Your task to perform on an android device: turn off translation in the chrome app Image 0: 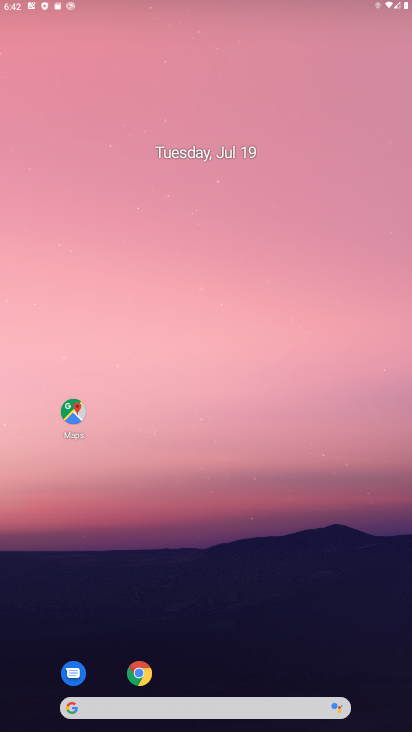
Step 0: drag from (380, 685) to (190, 48)
Your task to perform on an android device: turn off translation in the chrome app Image 1: 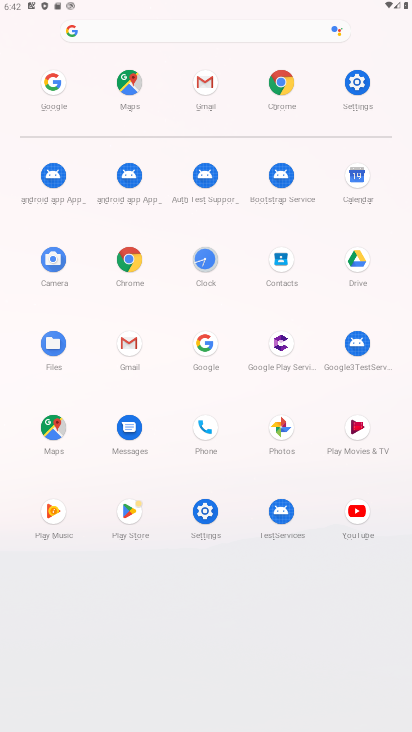
Step 1: click (125, 260)
Your task to perform on an android device: turn off translation in the chrome app Image 2: 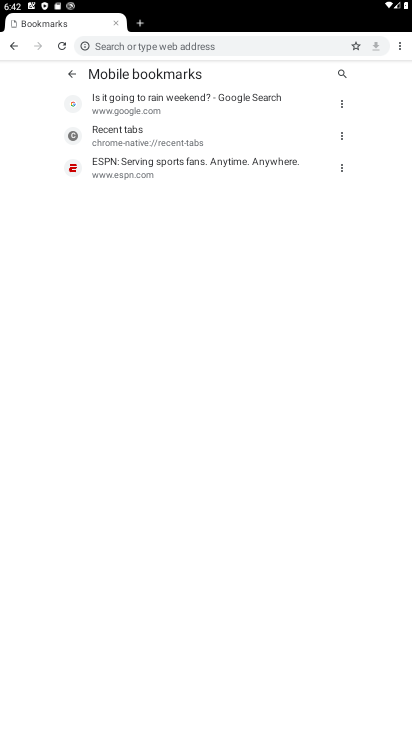
Step 2: press back button
Your task to perform on an android device: turn off translation in the chrome app Image 3: 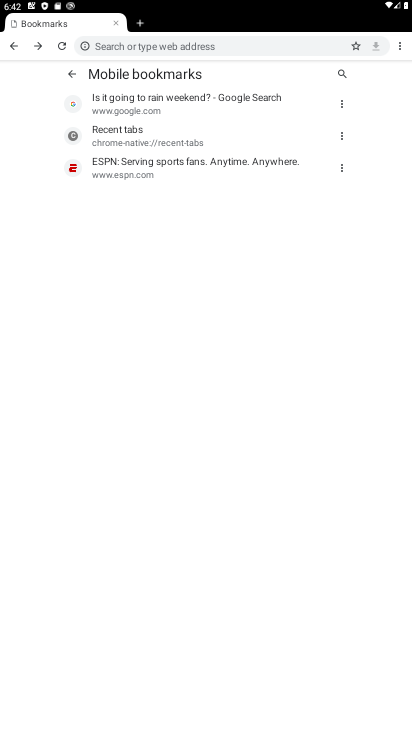
Step 3: click (403, 48)
Your task to perform on an android device: turn off translation in the chrome app Image 4: 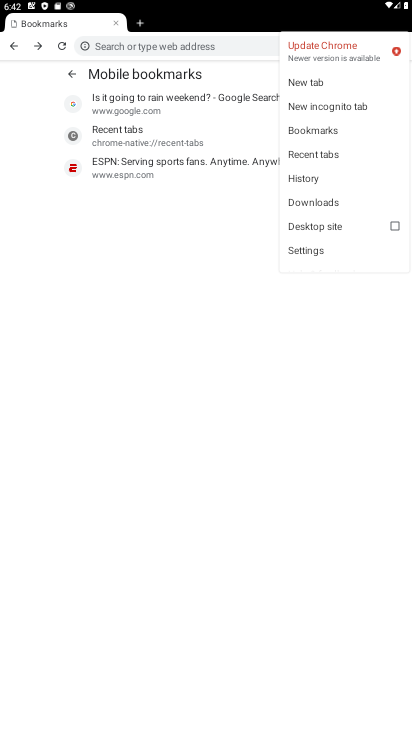
Step 4: click (307, 257)
Your task to perform on an android device: turn off translation in the chrome app Image 5: 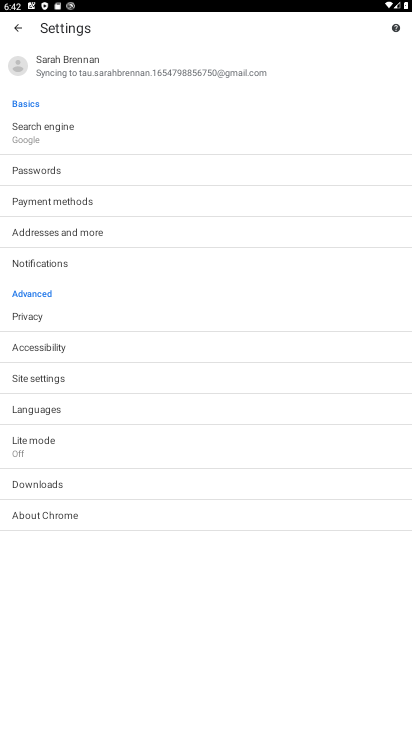
Step 5: drag from (38, 442) to (50, 249)
Your task to perform on an android device: turn off translation in the chrome app Image 6: 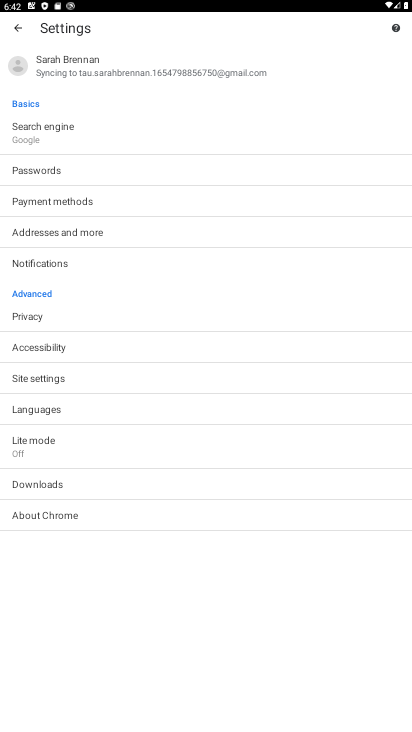
Step 6: click (71, 406)
Your task to perform on an android device: turn off translation in the chrome app Image 7: 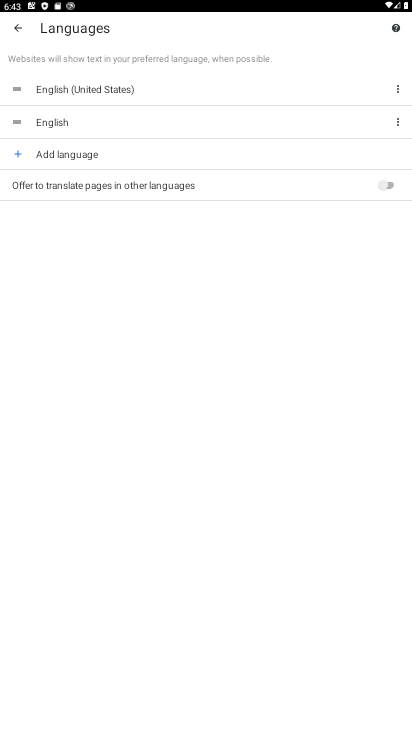
Step 7: task complete